Your task to perform on an android device: uninstall "Mercado Libre" Image 0: 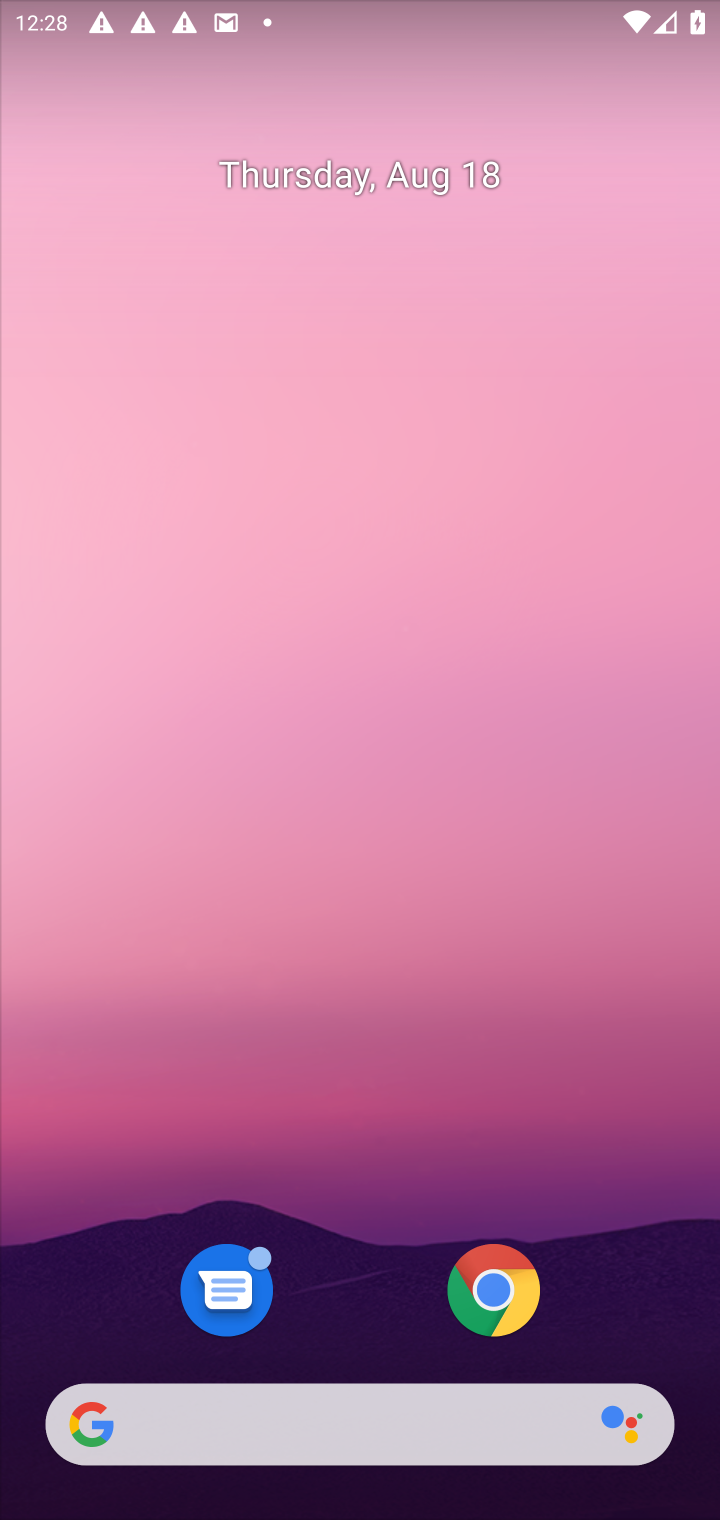
Step 0: drag from (675, 1231) to (465, 434)
Your task to perform on an android device: uninstall "Mercado Libre" Image 1: 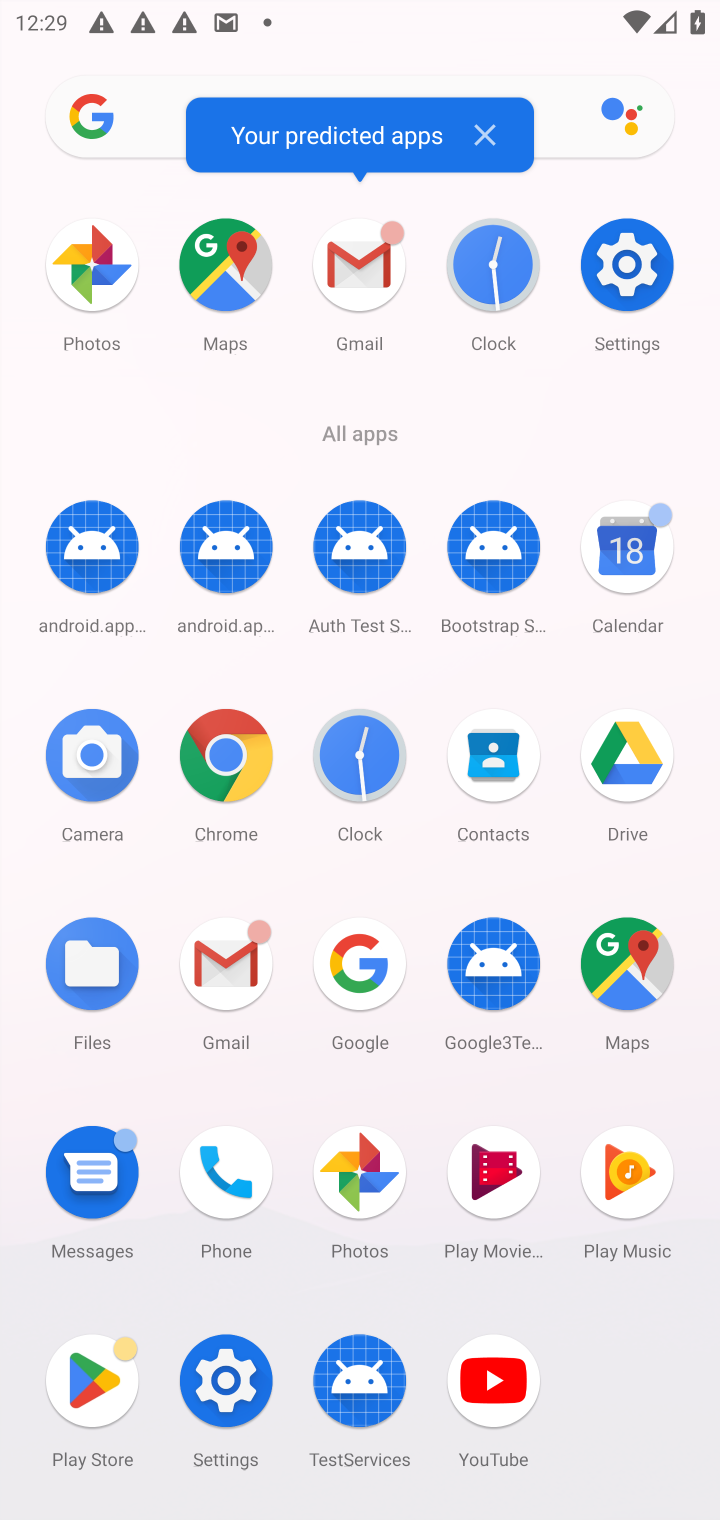
Step 1: click (81, 1373)
Your task to perform on an android device: uninstall "Mercado Libre" Image 2: 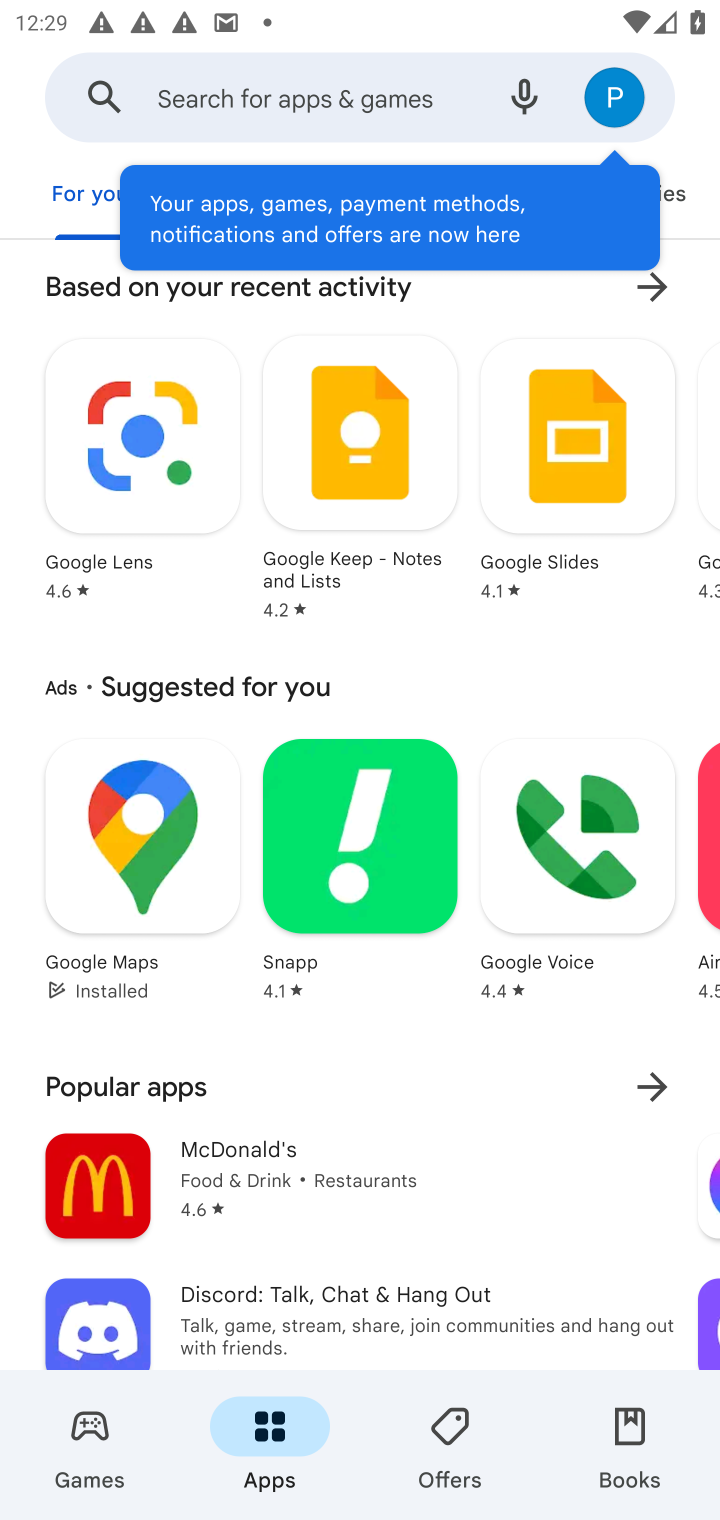
Step 2: click (314, 116)
Your task to perform on an android device: uninstall "Mercado Libre" Image 3: 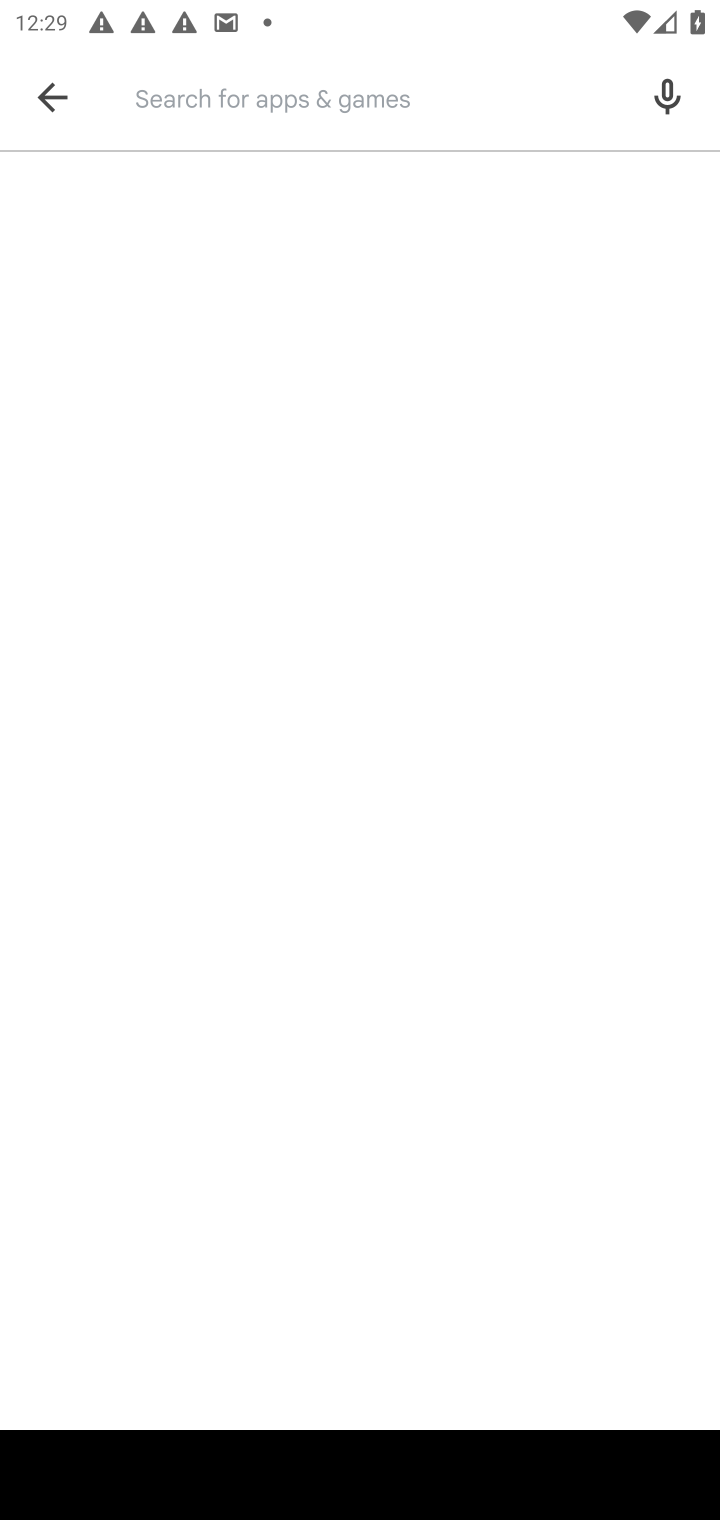
Step 3: type "mercado libre"
Your task to perform on an android device: uninstall "Mercado Libre" Image 4: 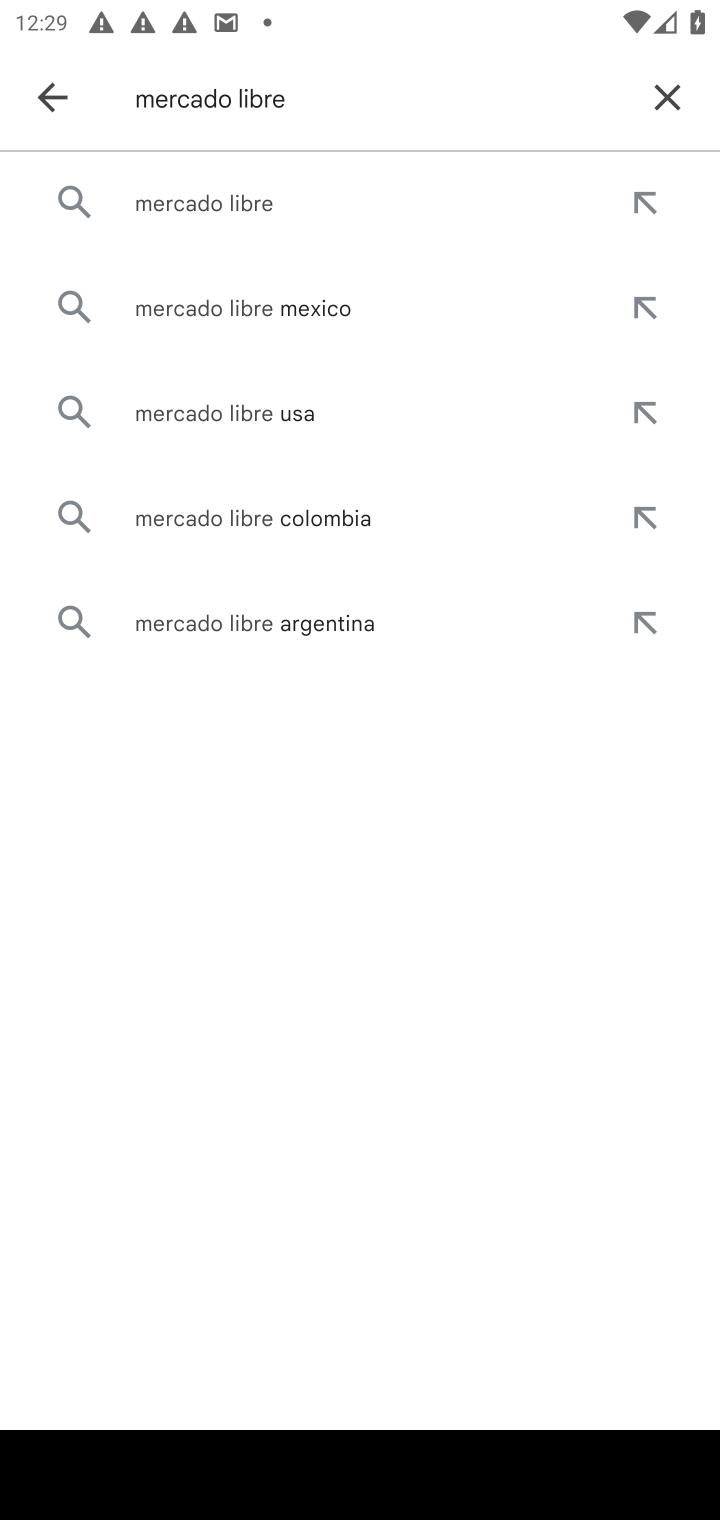
Step 4: click (405, 195)
Your task to perform on an android device: uninstall "Mercado Libre" Image 5: 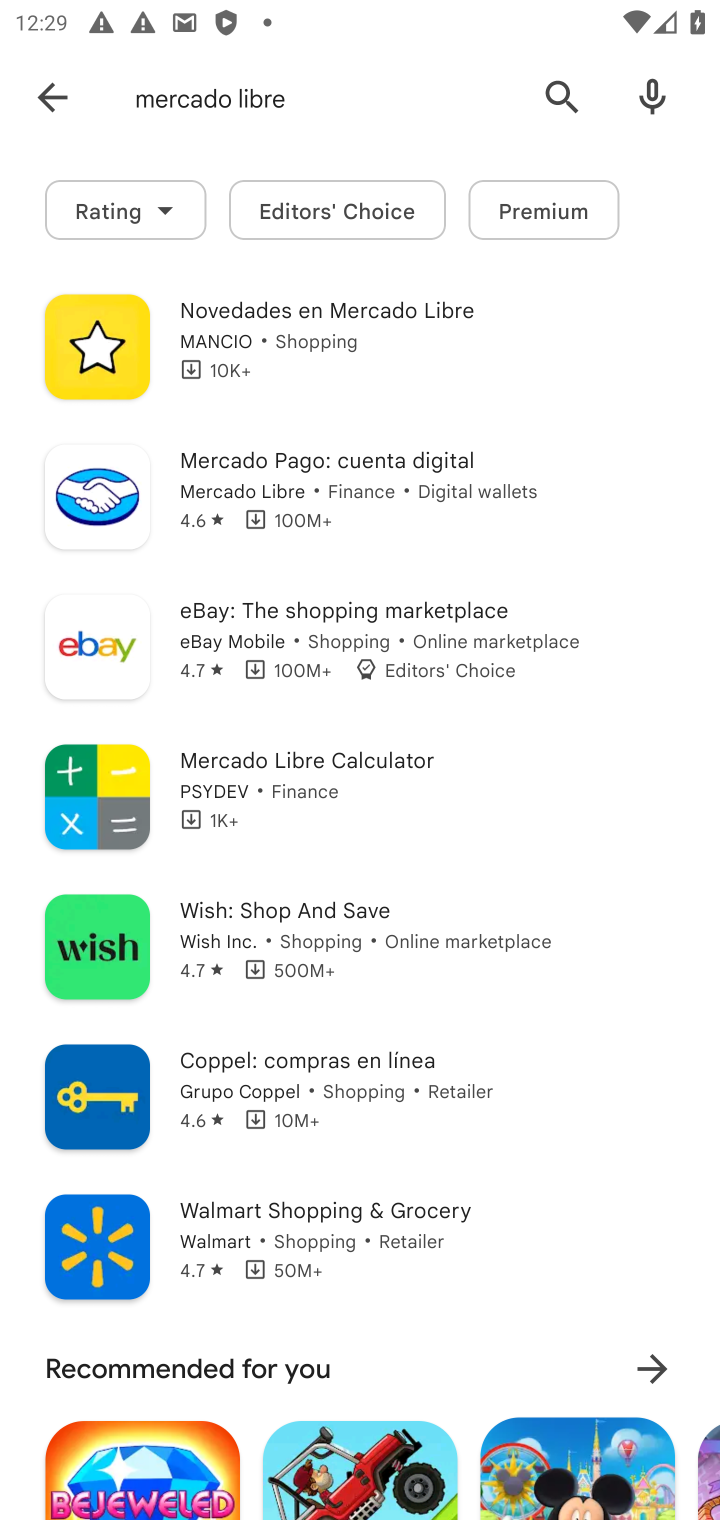
Step 5: click (453, 327)
Your task to perform on an android device: uninstall "Mercado Libre" Image 6: 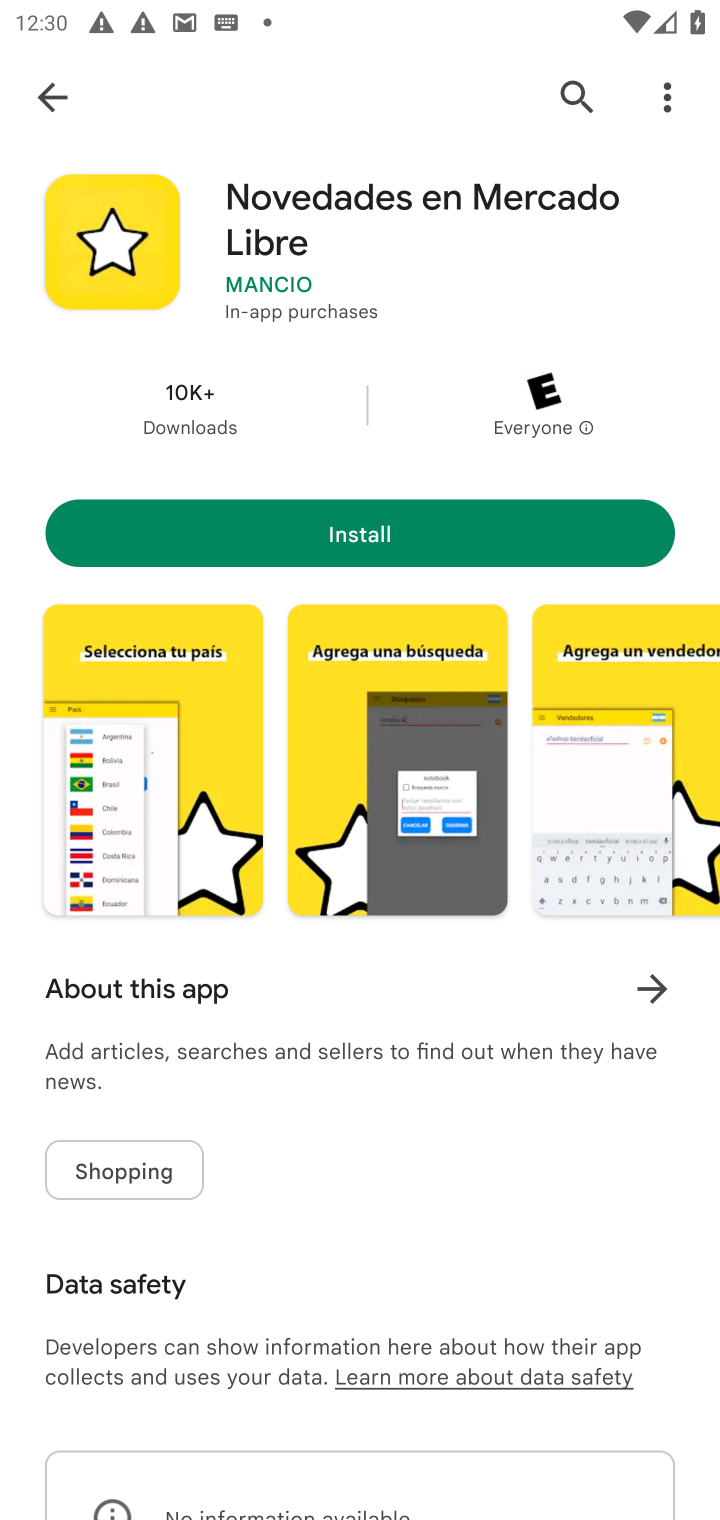
Step 6: task complete